Your task to perform on an android device: What's the weather going to be tomorrow? Image 0: 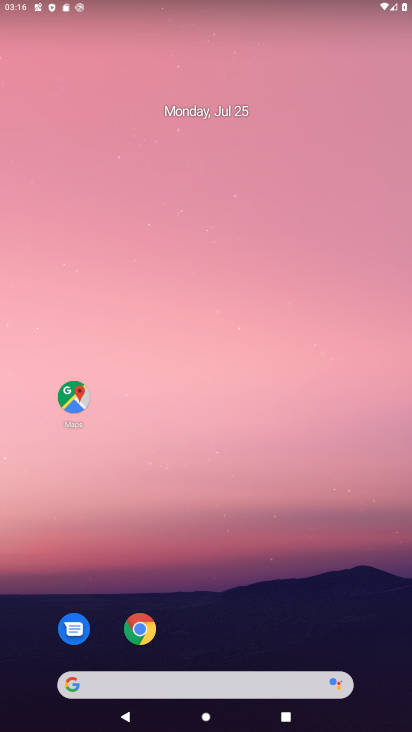
Step 0: press home button
Your task to perform on an android device: What's the weather going to be tomorrow? Image 1: 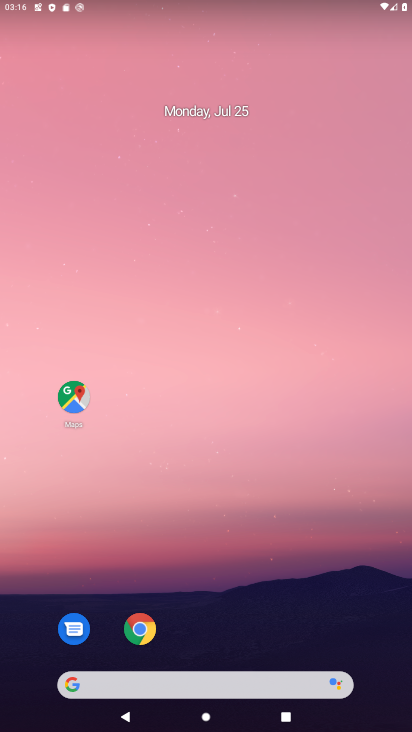
Step 1: drag from (248, 661) to (247, 623)
Your task to perform on an android device: What's the weather going to be tomorrow? Image 2: 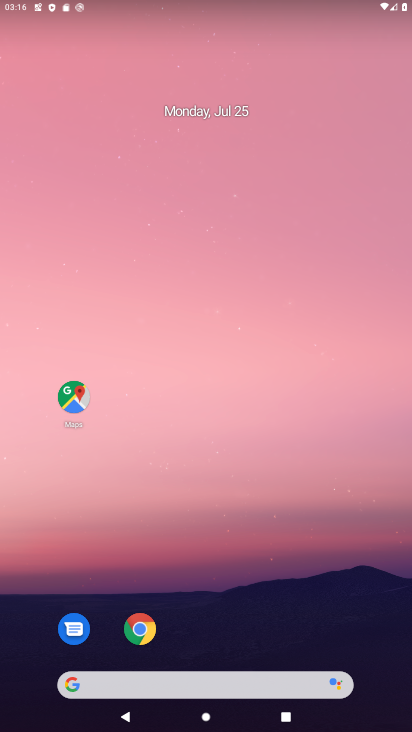
Step 2: click (213, 654)
Your task to perform on an android device: What's the weather going to be tomorrow? Image 3: 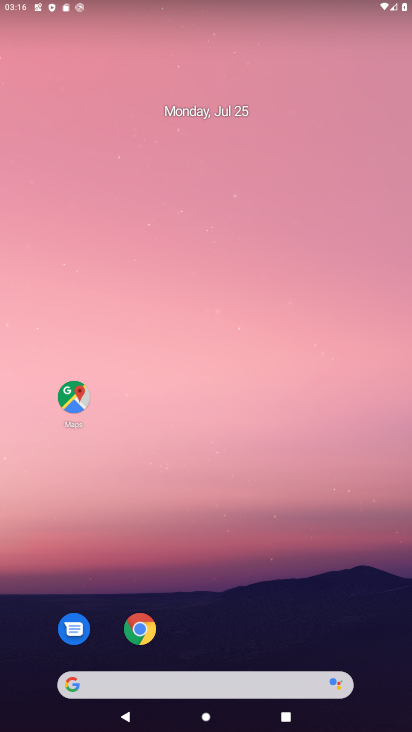
Step 3: click (193, 678)
Your task to perform on an android device: What's the weather going to be tomorrow? Image 4: 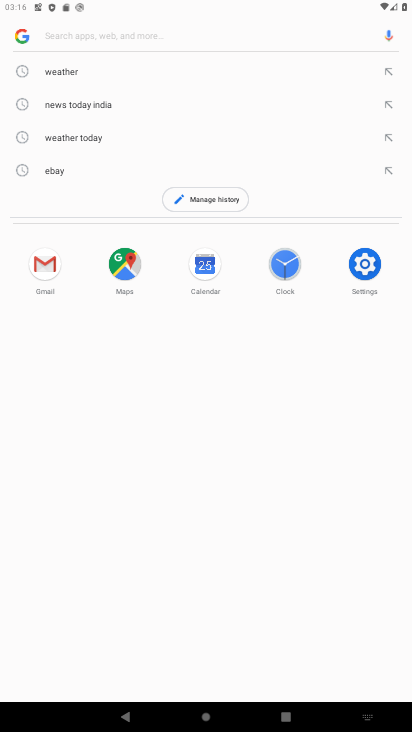
Step 4: click (90, 42)
Your task to perform on an android device: What's the weather going to be tomorrow? Image 5: 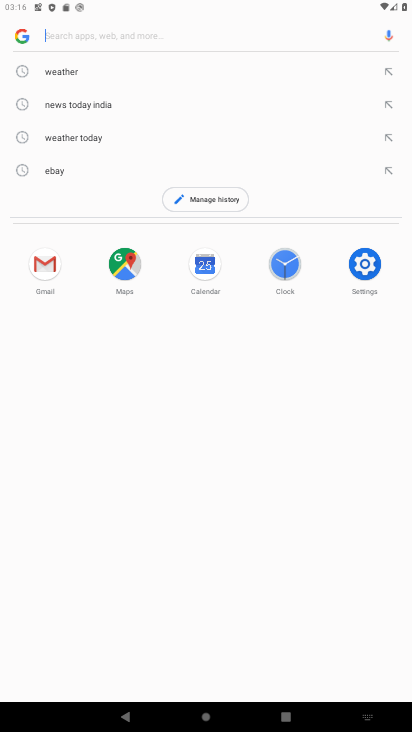
Step 5: click (68, 71)
Your task to perform on an android device: What's the weather going to be tomorrow? Image 6: 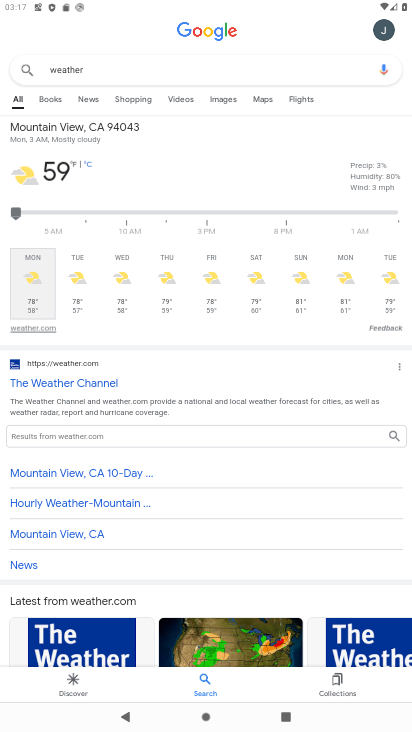
Step 6: click (72, 253)
Your task to perform on an android device: What's the weather going to be tomorrow? Image 7: 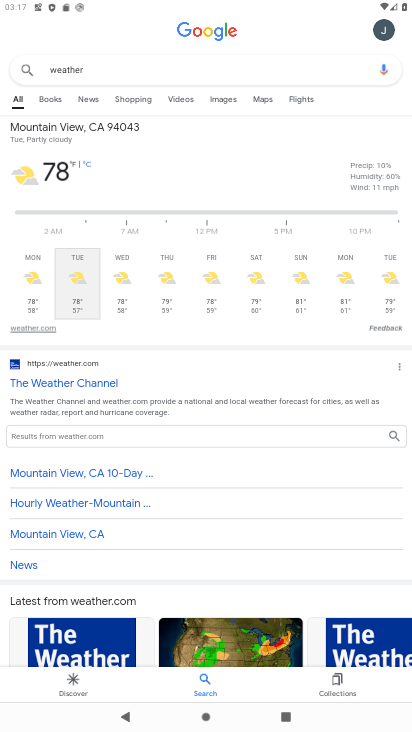
Step 7: task complete